Your task to perform on an android device: open app "Spotify: Music and Podcasts" (install if not already installed) Image 0: 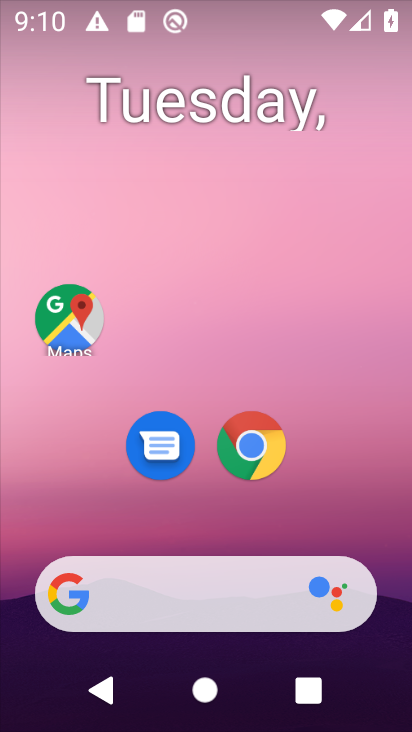
Step 0: click (204, 238)
Your task to perform on an android device: open app "Spotify: Music and Podcasts" (install if not already installed) Image 1: 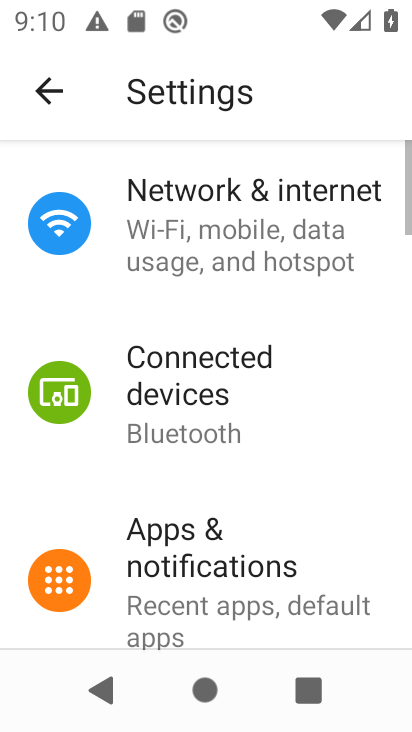
Step 1: drag from (203, 547) to (205, 395)
Your task to perform on an android device: open app "Spotify: Music and Podcasts" (install if not already installed) Image 2: 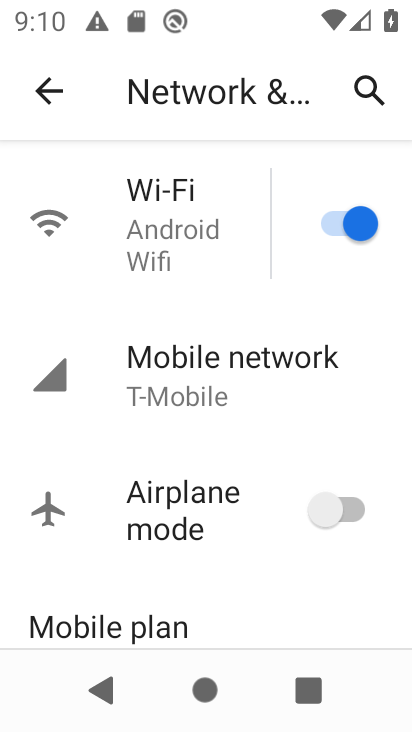
Step 2: press home button
Your task to perform on an android device: open app "Spotify: Music and Podcasts" (install if not already installed) Image 3: 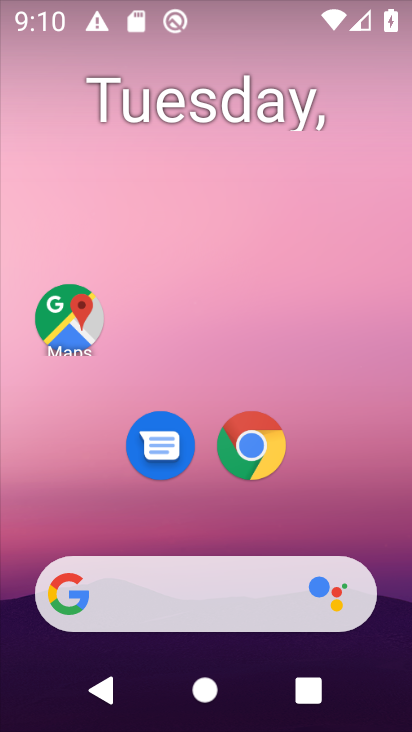
Step 3: drag from (181, 639) to (202, 165)
Your task to perform on an android device: open app "Spotify: Music and Podcasts" (install if not already installed) Image 4: 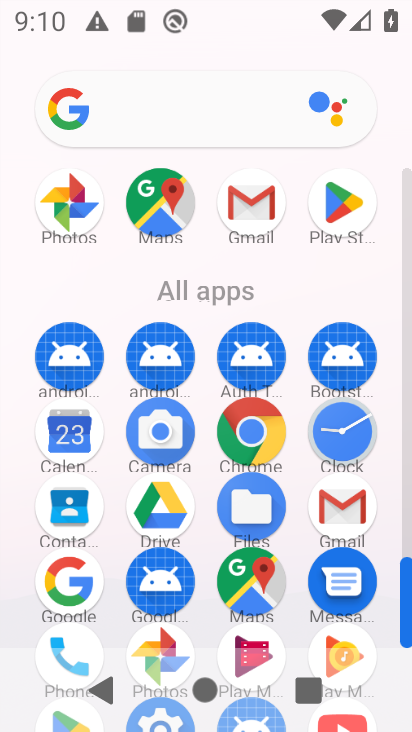
Step 4: drag from (98, 613) to (127, 205)
Your task to perform on an android device: open app "Spotify: Music and Podcasts" (install if not already installed) Image 5: 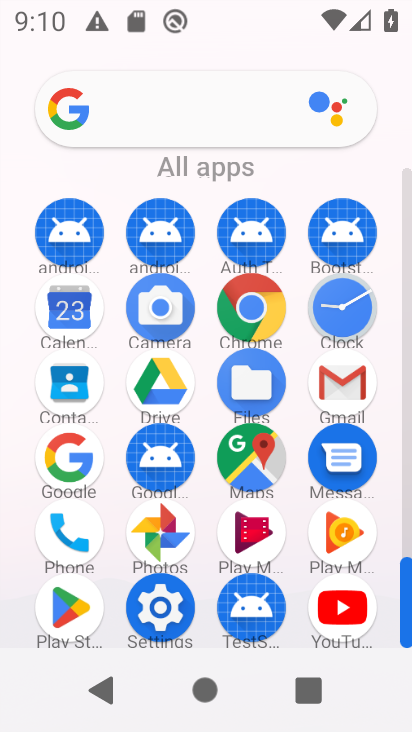
Step 5: click (63, 601)
Your task to perform on an android device: open app "Spotify: Music and Podcasts" (install if not already installed) Image 6: 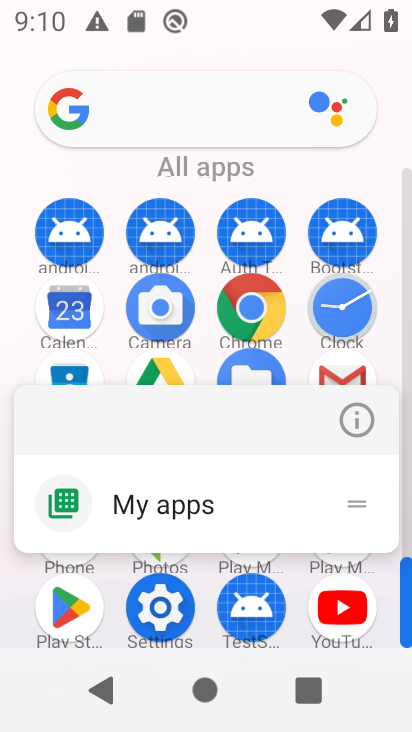
Step 6: click (63, 601)
Your task to perform on an android device: open app "Spotify: Music and Podcasts" (install if not already installed) Image 7: 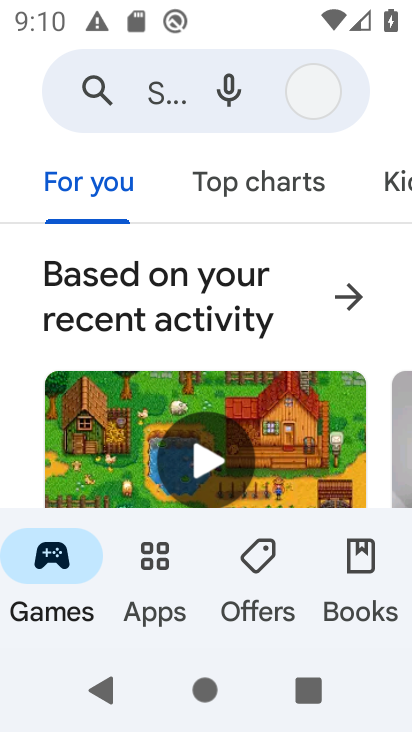
Step 7: click (155, 75)
Your task to perform on an android device: open app "Spotify: Music and Podcasts" (install if not already installed) Image 8: 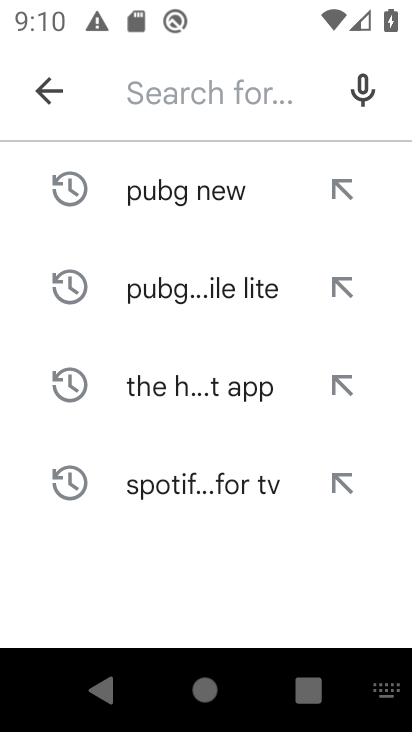
Step 8: type "Spotify: Music and Podcasts "
Your task to perform on an android device: open app "Spotify: Music and Podcasts" (install if not already installed) Image 9: 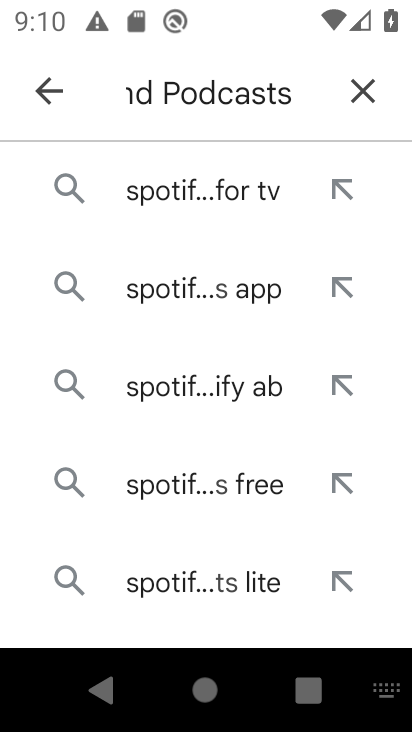
Step 9: click (192, 201)
Your task to perform on an android device: open app "Spotify: Music and Podcasts" (install if not already installed) Image 10: 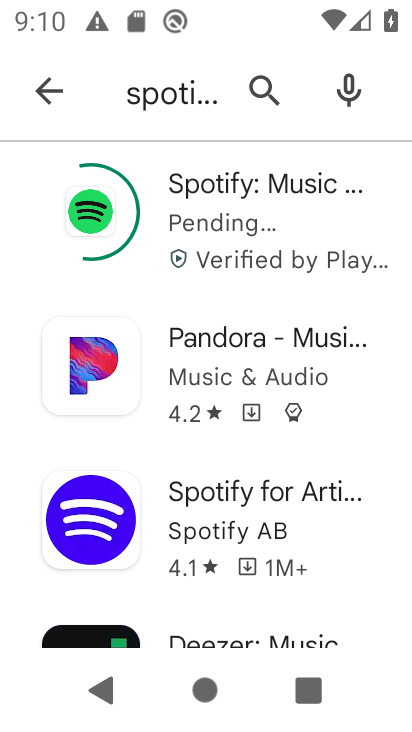
Step 10: click (192, 201)
Your task to perform on an android device: open app "Spotify: Music and Podcasts" (install if not already installed) Image 11: 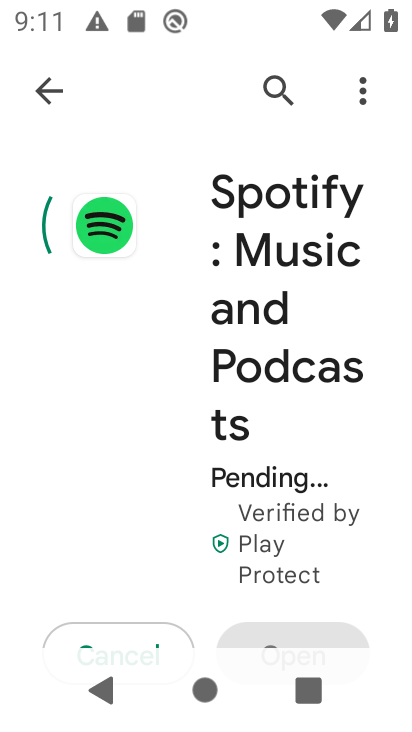
Step 11: task complete